Your task to perform on an android device: turn on the 24-hour format for clock Image 0: 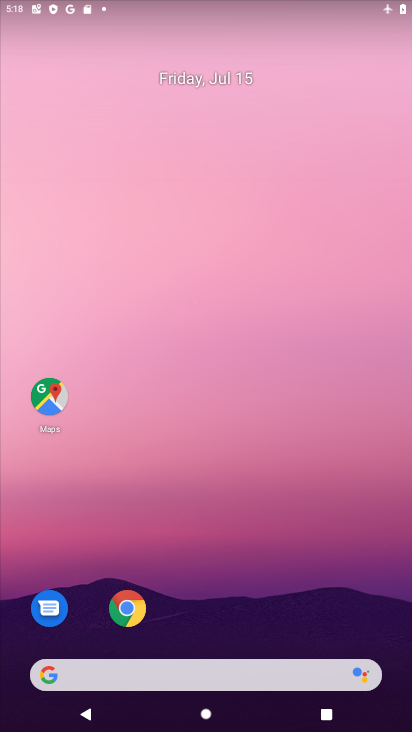
Step 0: drag from (168, 602) to (223, 36)
Your task to perform on an android device: turn on the 24-hour format for clock Image 1: 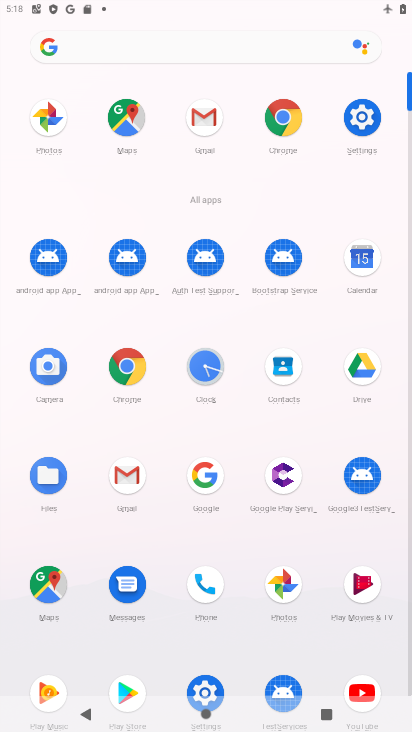
Step 1: click (208, 365)
Your task to perform on an android device: turn on the 24-hour format for clock Image 2: 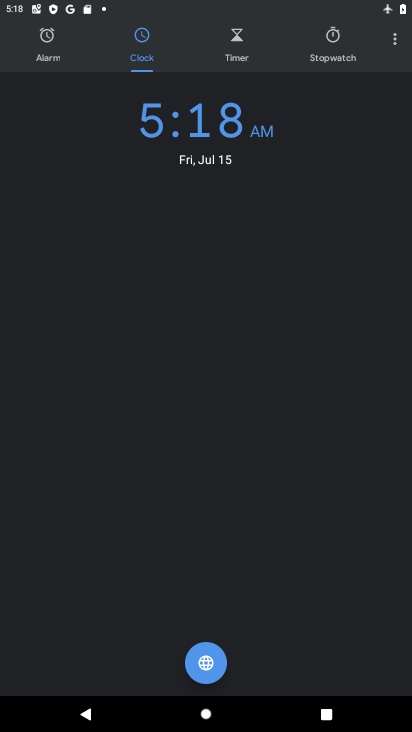
Step 2: click (394, 33)
Your task to perform on an android device: turn on the 24-hour format for clock Image 3: 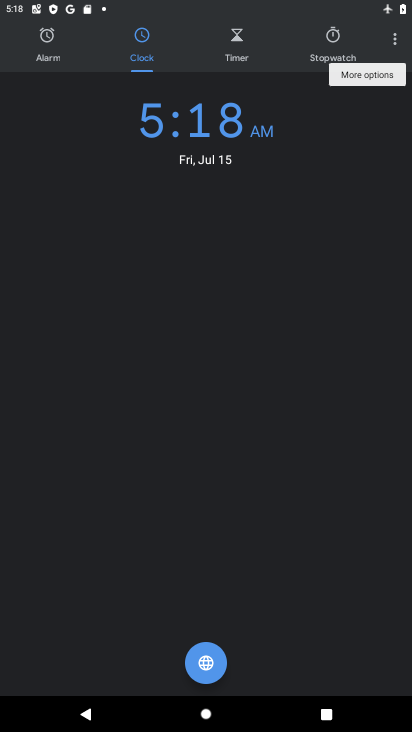
Step 3: click (394, 34)
Your task to perform on an android device: turn on the 24-hour format for clock Image 4: 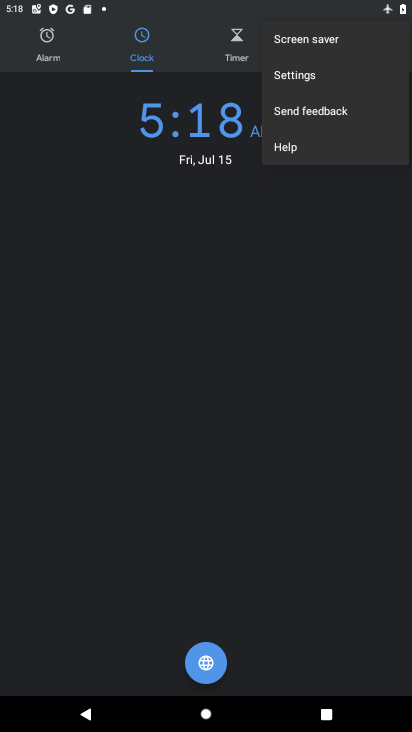
Step 4: click (265, 85)
Your task to perform on an android device: turn on the 24-hour format for clock Image 5: 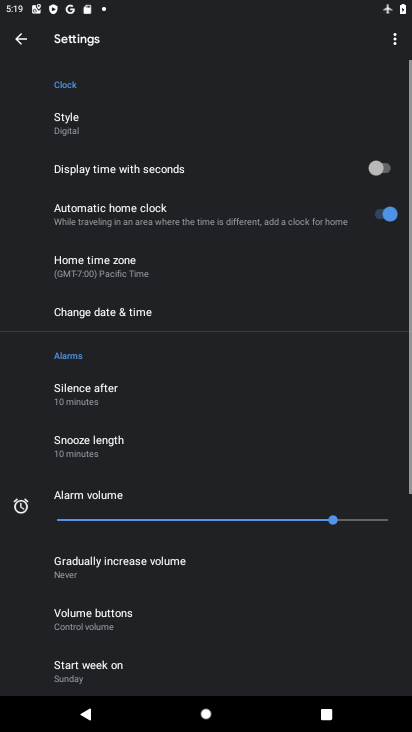
Step 5: drag from (255, 704) to (186, 41)
Your task to perform on an android device: turn on the 24-hour format for clock Image 6: 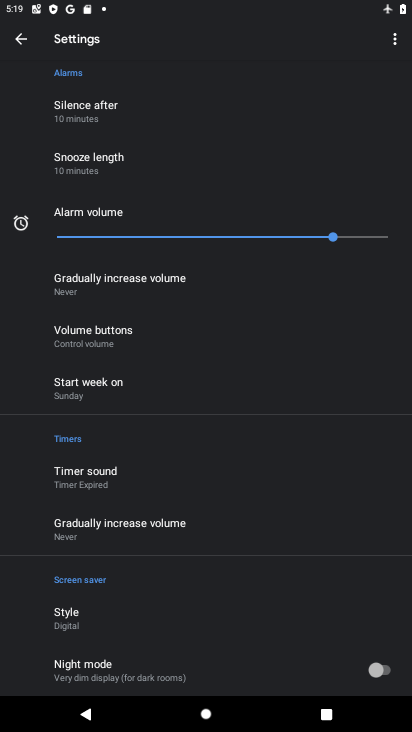
Step 6: drag from (127, 181) to (128, 603)
Your task to perform on an android device: turn on the 24-hour format for clock Image 7: 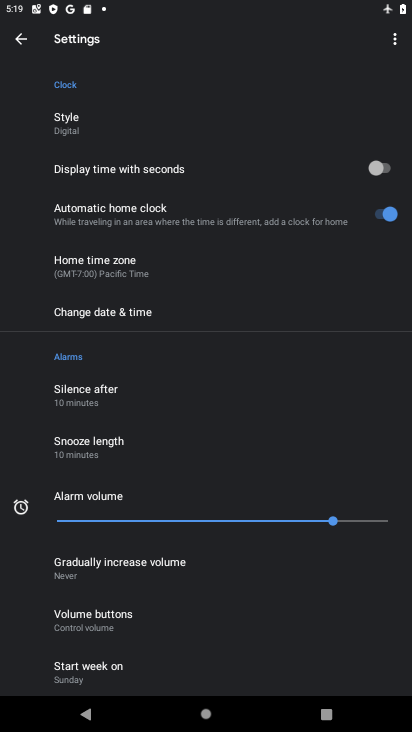
Step 7: click (94, 315)
Your task to perform on an android device: turn on the 24-hour format for clock Image 8: 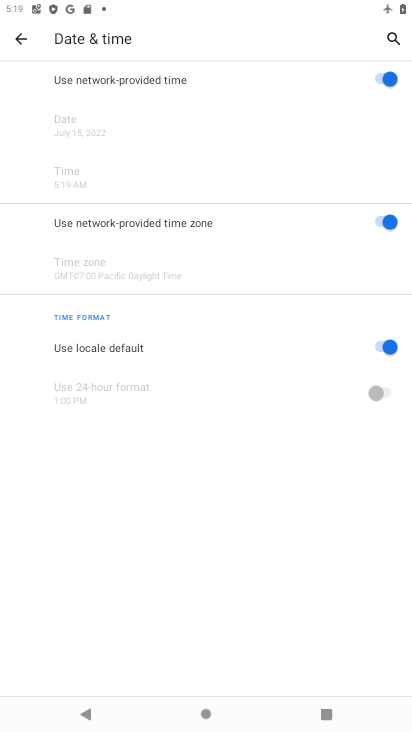
Step 8: click (380, 344)
Your task to perform on an android device: turn on the 24-hour format for clock Image 9: 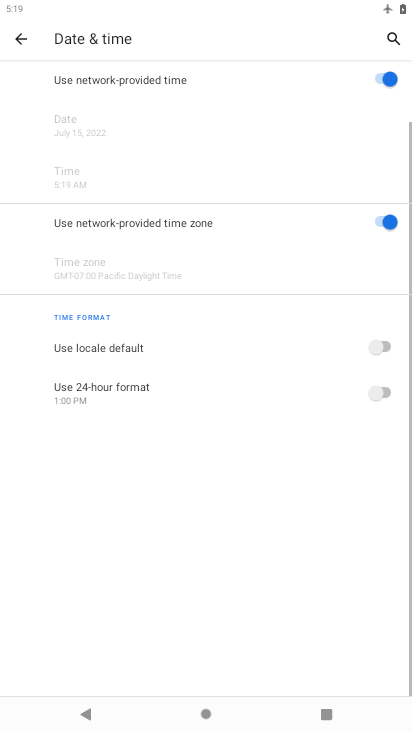
Step 9: click (367, 394)
Your task to perform on an android device: turn on the 24-hour format for clock Image 10: 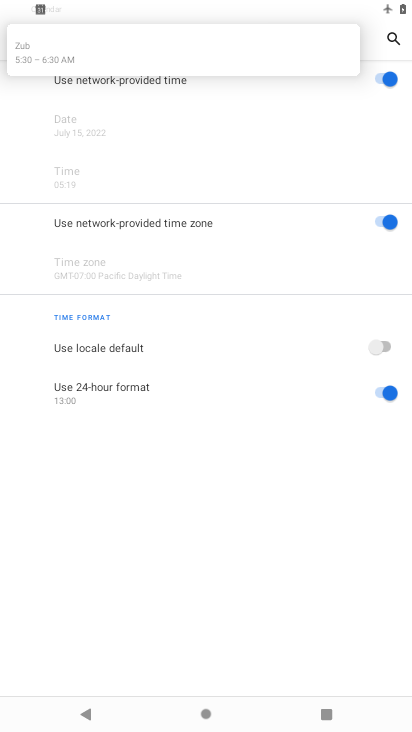
Step 10: task complete